Your task to perform on an android device: Go to network settings Image 0: 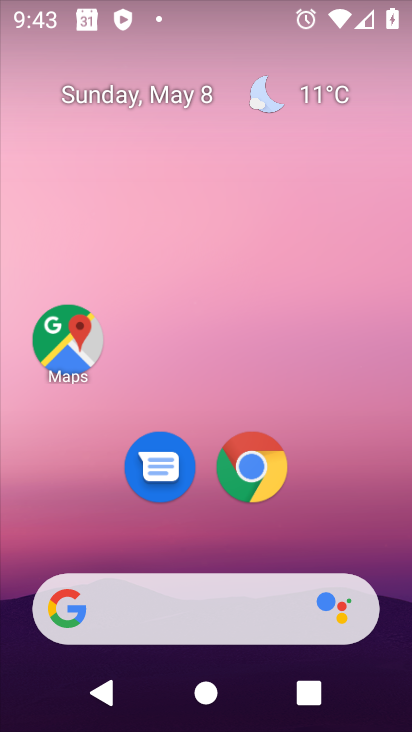
Step 0: drag from (6, 702) to (329, 193)
Your task to perform on an android device: Go to network settings Image 1: 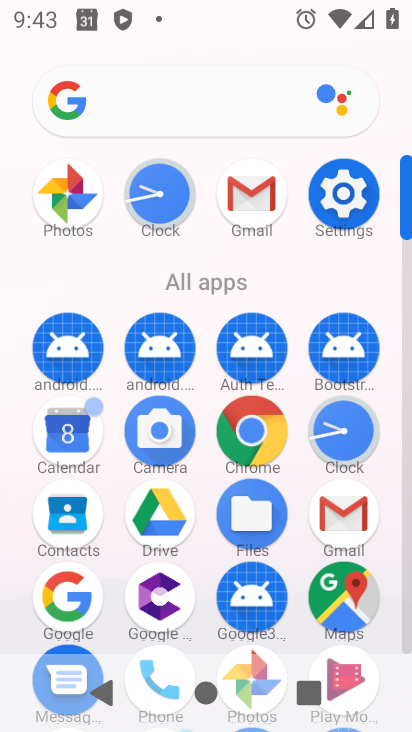
Step 1: click (340, 191)
Your task to perform on an android device: Go to network settings Image 2: 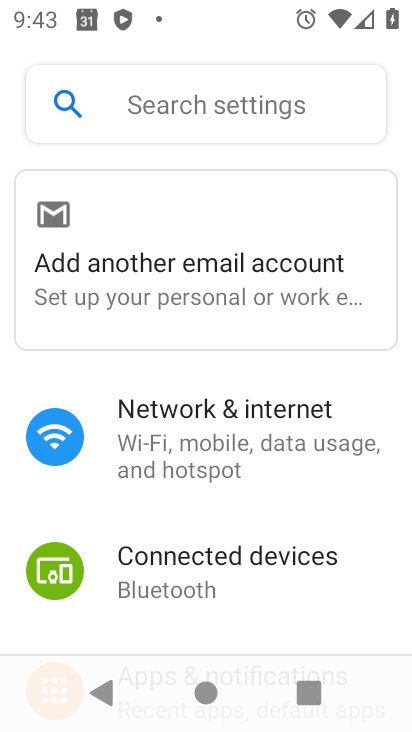
Step 2: click (312, 434)
Your task to perform on an android device: Go to network settings Image 3: 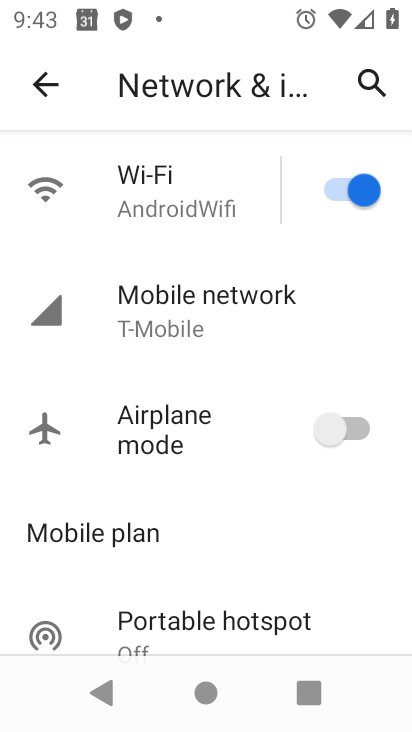
Step 3: click (201, 313)
Your task to perform on an android device: Go to network settings Image 4: 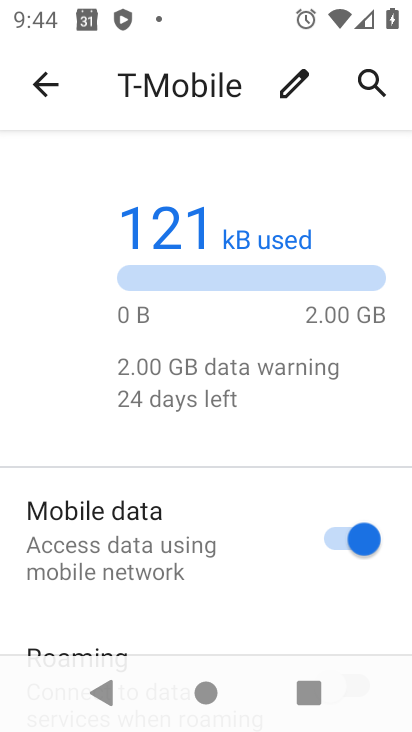
Step 4: task complete